Your task to perform on an android device: toggle priority inbox in the gmail app Image 0: 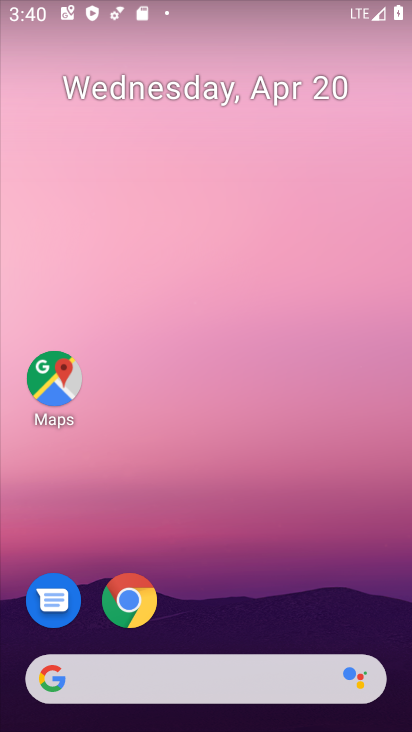
Step 0: drag from (273, 613) to (378, 19)
Your task to perform on an android device: toggle priority inbox in the gmail app Image 1: 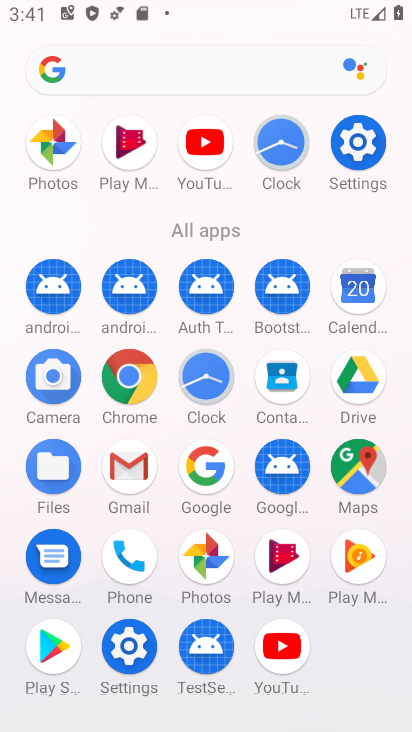
Step 1: click (140, 473)
Your task to perform on an android device: toggle priority inbox in the gmail app Image 2: 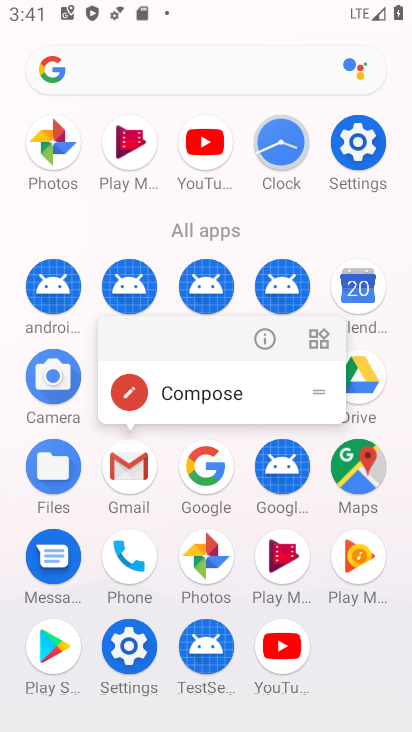
Step 2: click (139, 471)
Your task to perform on an android device: toggle priority inbox in the gmail app Image 3: 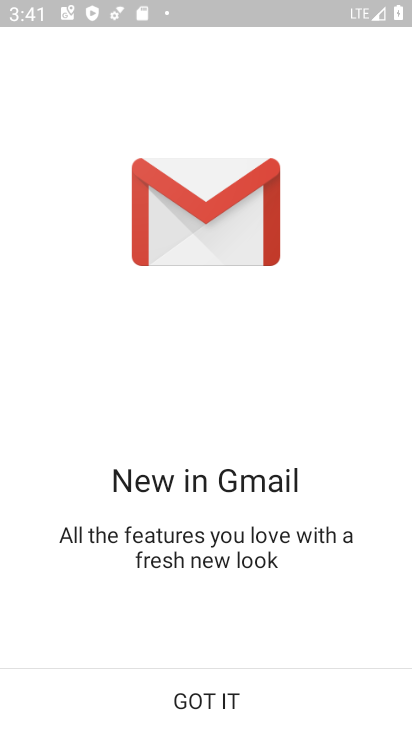
Step 3: click (190, 706)
Your task to perform on an android device: toggle priority inbox in the gmail app Image 4: 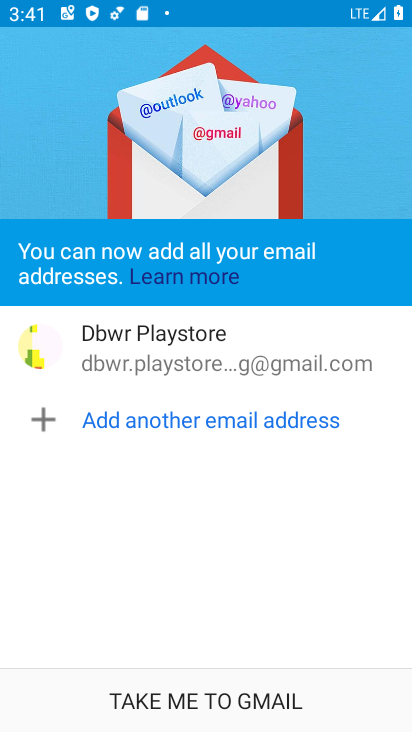
Step 4: click (222, 706)
Your task to perform on an android device: toggle priority inbox in the gmail app Image 5: 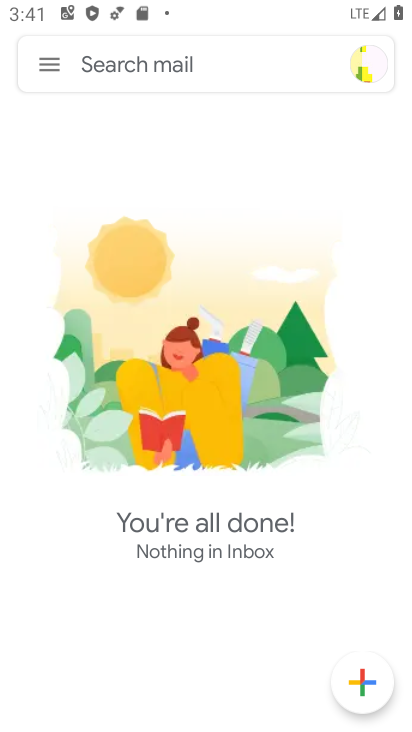
Step 5: click (40, 58)
Your task to perform on an android device: toggle priority inbox in the gmail app Image 6: 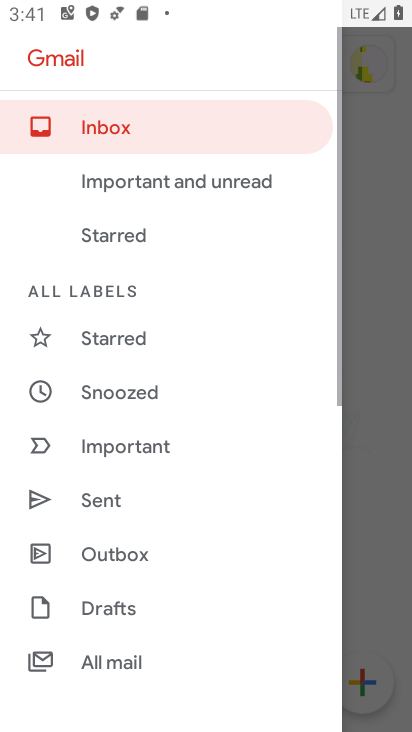
Step 6: drag from (212, 201) to (229, 103)
Your task to perform on an android device: toggle priority inbox in the gmail app Image 7: 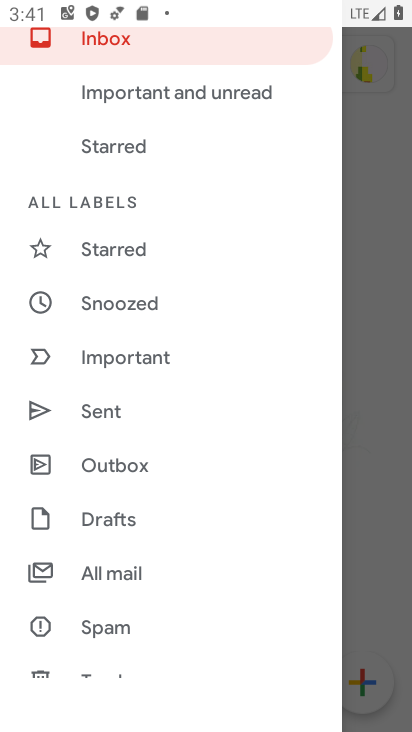
Step 7: drag from (155, 658) to (210, 329)
Your task to perform on an android device: toggle priority inbox in the gmail app Image 8: 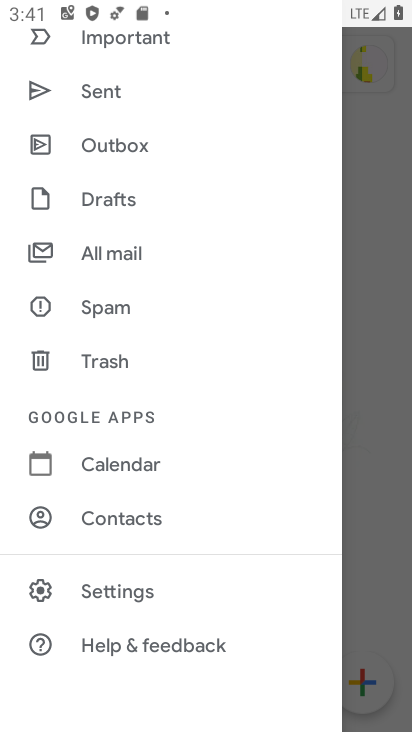
Step 8: click (119, 590)
Your task to perform on an android device: toggle priority inbox in the gmail app Image 9: 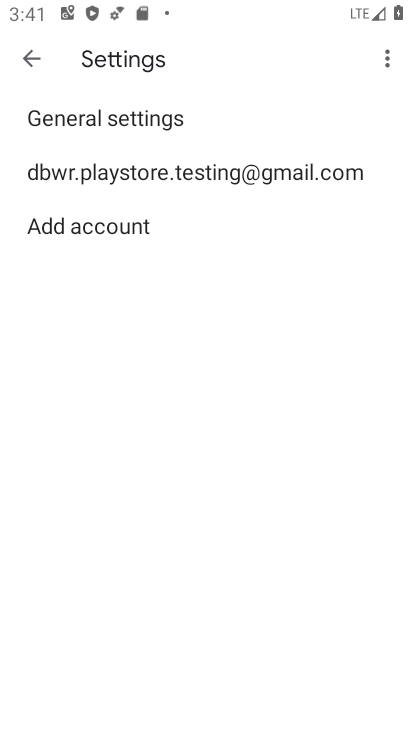
Step 9: click (134, 169)
Your task to perform on an android device: toggle priority inbox in the gmail app Image 10: 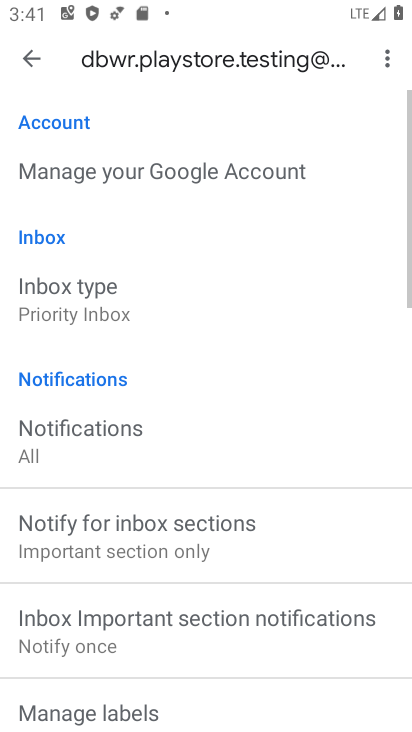
Step 10: click (77, 291)
Your task to perform on an android device: toggle priority inbox in the gmail app Image 11: 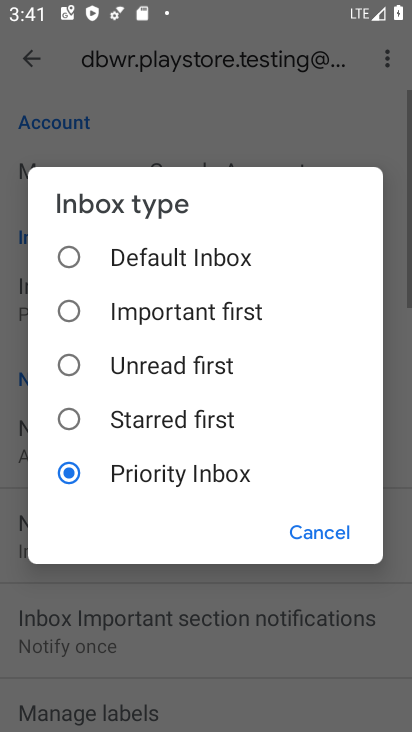
Step 11: click (200, 427)
Your task to perform on an android device: toggle priority inbox in the gmail app Image 12: 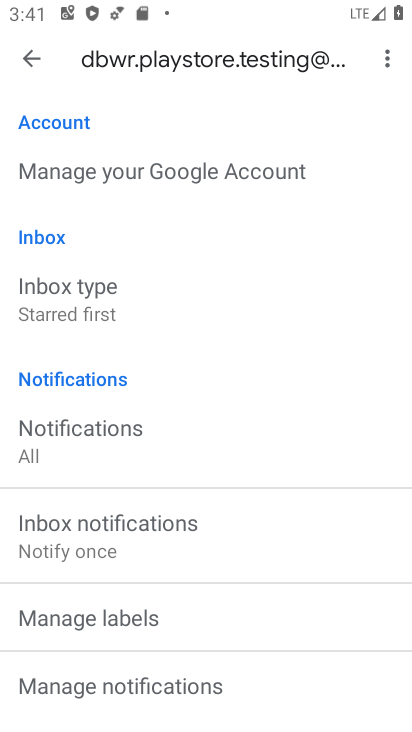
Step 12: task complete